Your task to perform on an android device: create a new album in the google photos Image 0: 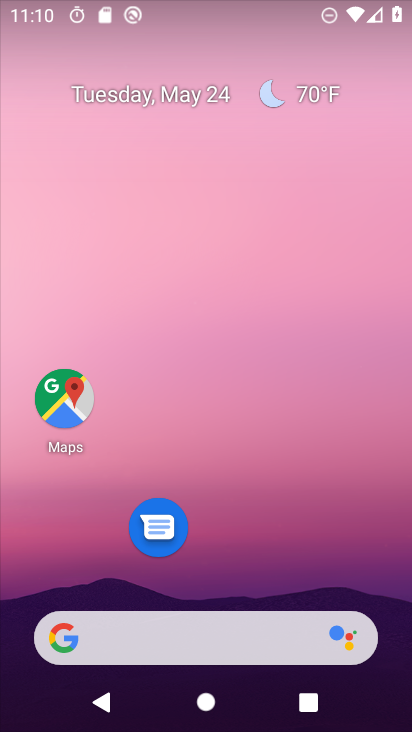
Step 0: drag from (281, 426) to (266, 41)
Your task to perform on an android device: create a new album in the google photos Image 1: 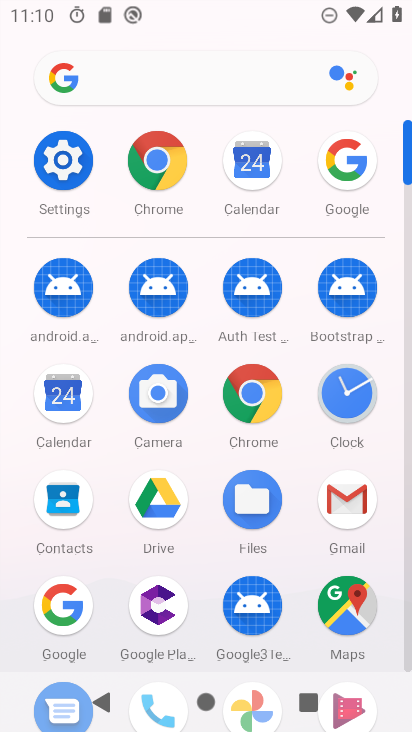
Step 1: drag from (192, 568) to (209, 183)
Your task to perform on an android device: create a new album in the google photos Image 2: 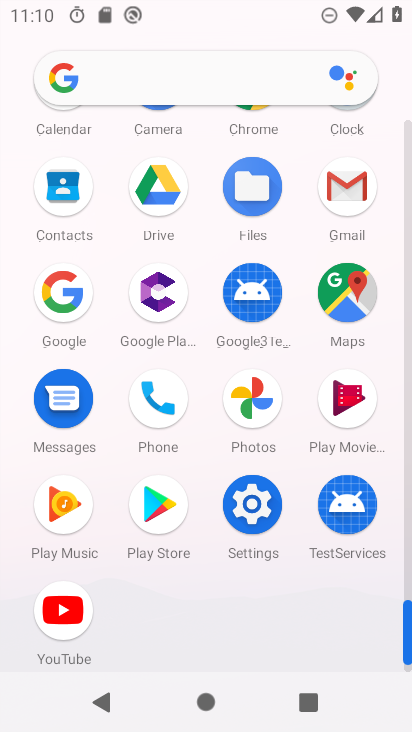
Step 2: click (254, 399)
Your task to perform on an android device: create a new album in the google photos Image 3: 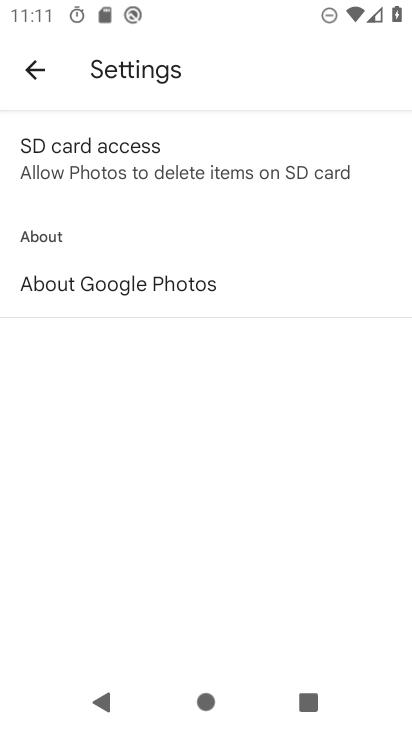
Step 3: press back button
Your task to perform on an android device: create a new album in the google photos Image 4: 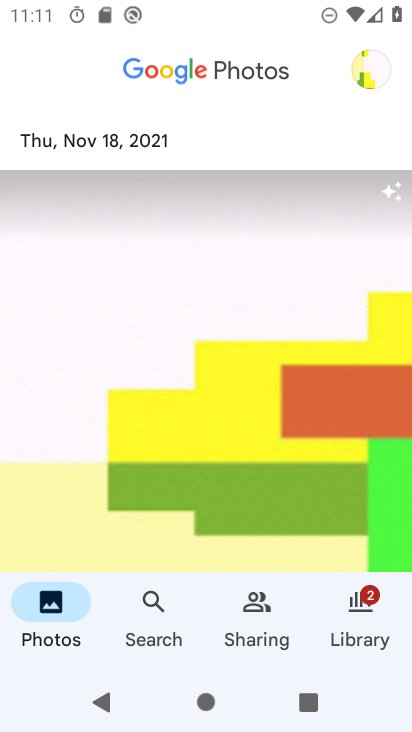
Step 4: click (356, 624)
Your task to perform on an android device: create a new album in the google photos Image 5: 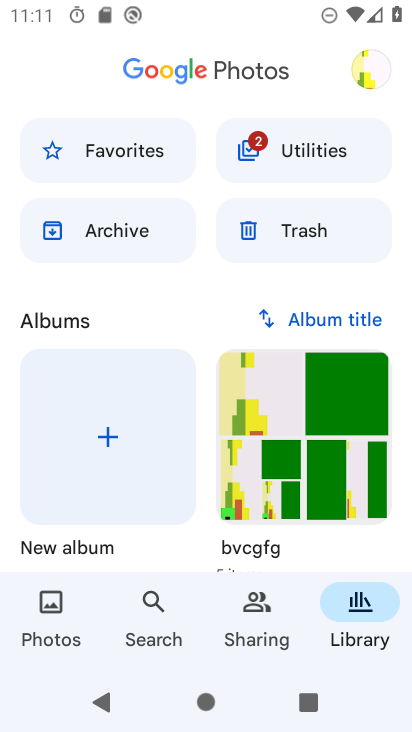
Step 5: click (114, 426)
Your task to perform on an android device: create a new album in the google photos Image 6: 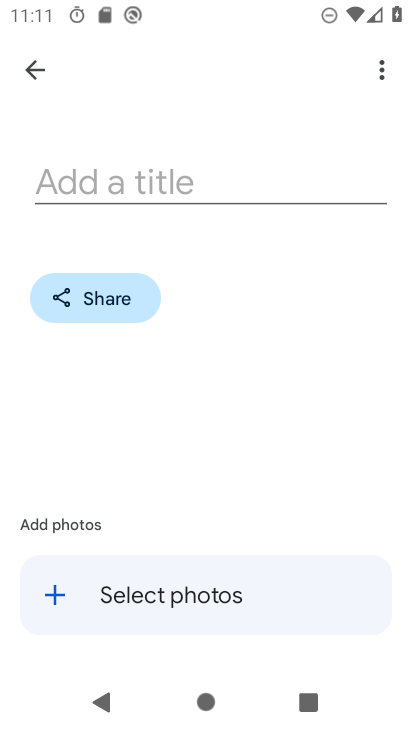
Step 6: click (184, 189)
Your task to perform on an android device: create a new album in the google photos Image 7: 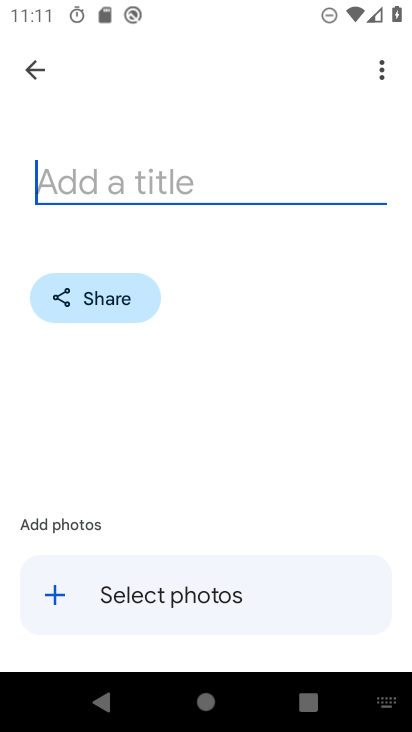
Step 7: type "tdgh"
Your task to perform on an android device: create a new album in the google photos Image 8: 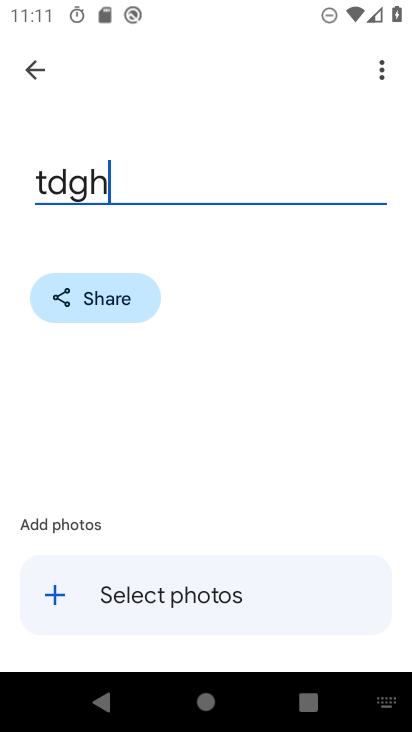
Step 8: click (55, 599)
Your task to perform on an android device: create a new album in the google photos Image 9: 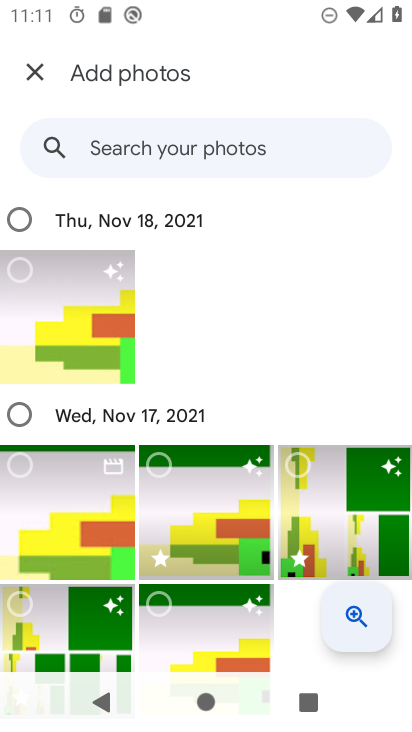
Step 9: click (73, 310)
Your task to perform on an android device: create a new album in the google photos Image 10: 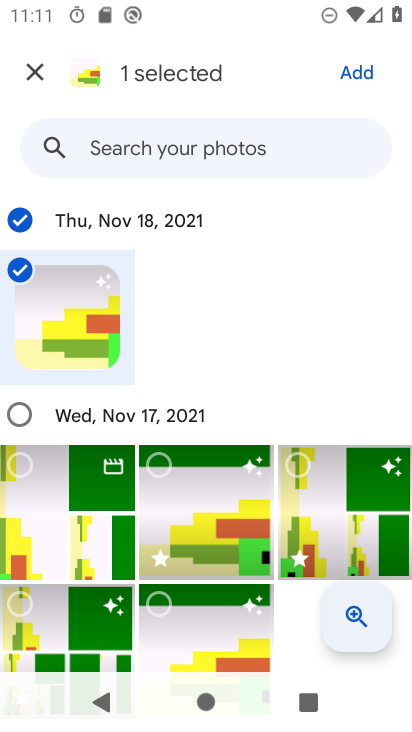
Step 10: click (349, 82)
Your task to perform on an android device: create a new album in the google photos Image 11: 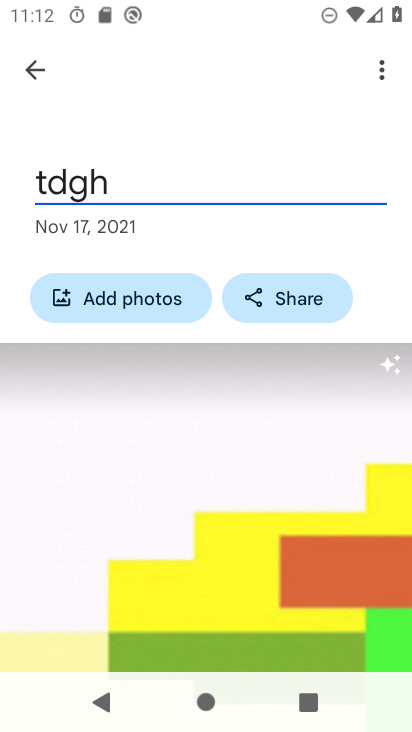
Step 11: task complete